Your task to perform on an android device: install app "Walmart Shopping & Grocery" Image 0: 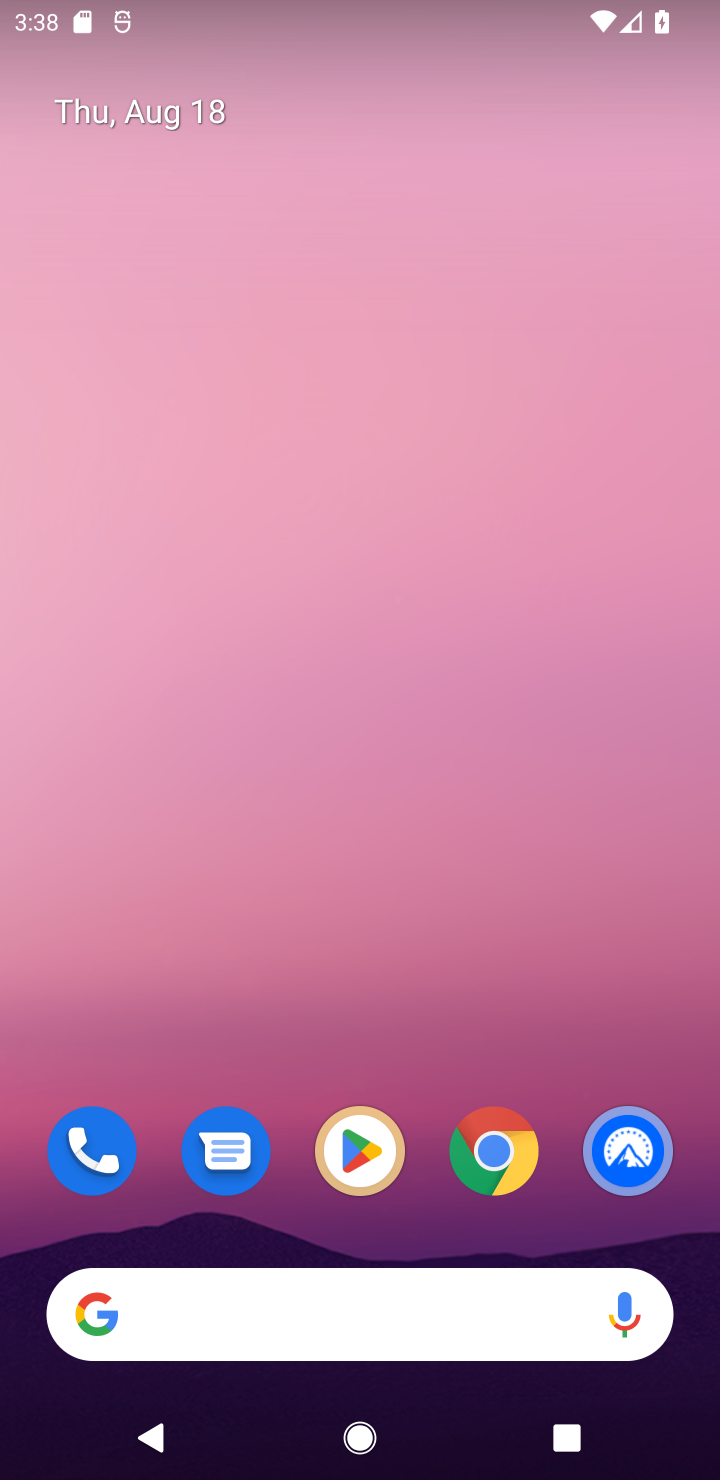
Step 0: click (372, 1176)
Your task to perform on an android device: install app "Walmart Shopping & Grocery" Image 1: 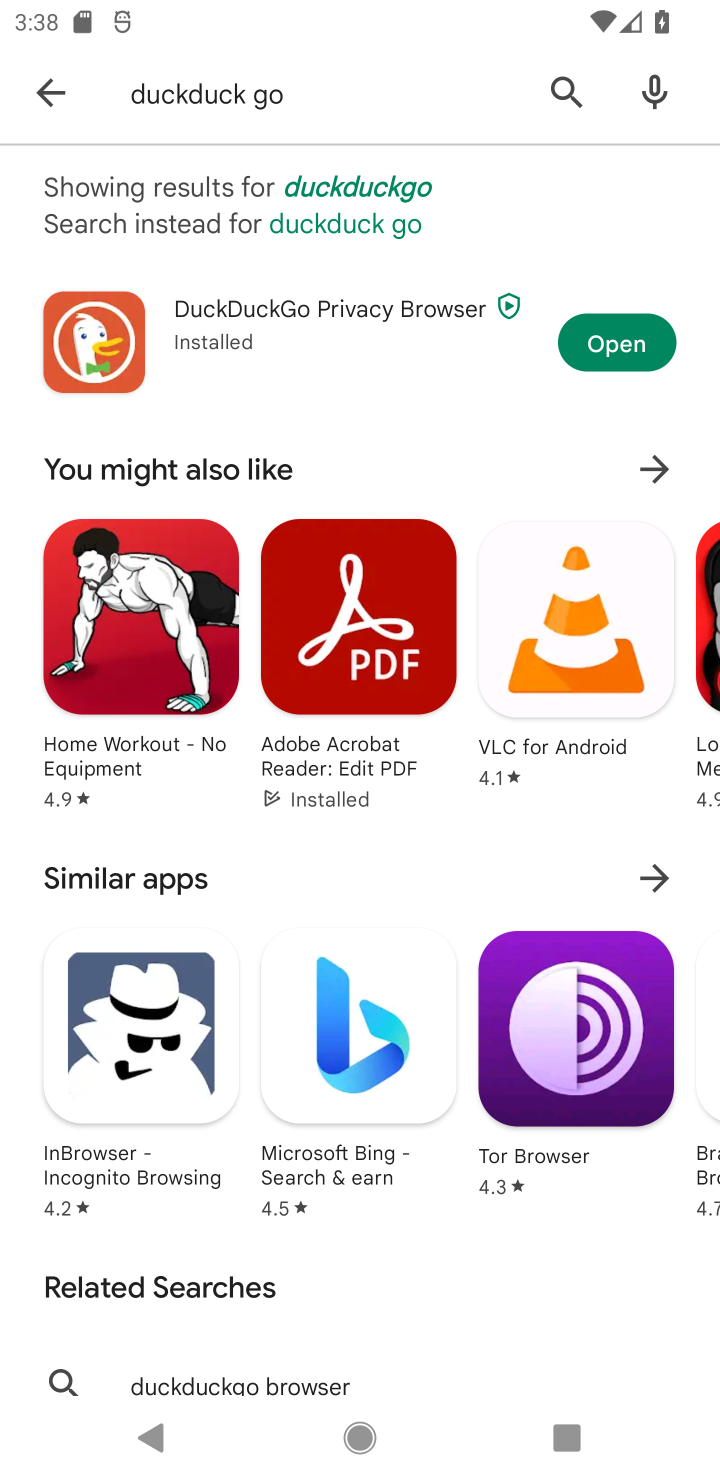
Step 1: click (567, 70)
Your task to perform on an android device: install app "Walmart Shopping & Grocery" Image 2: 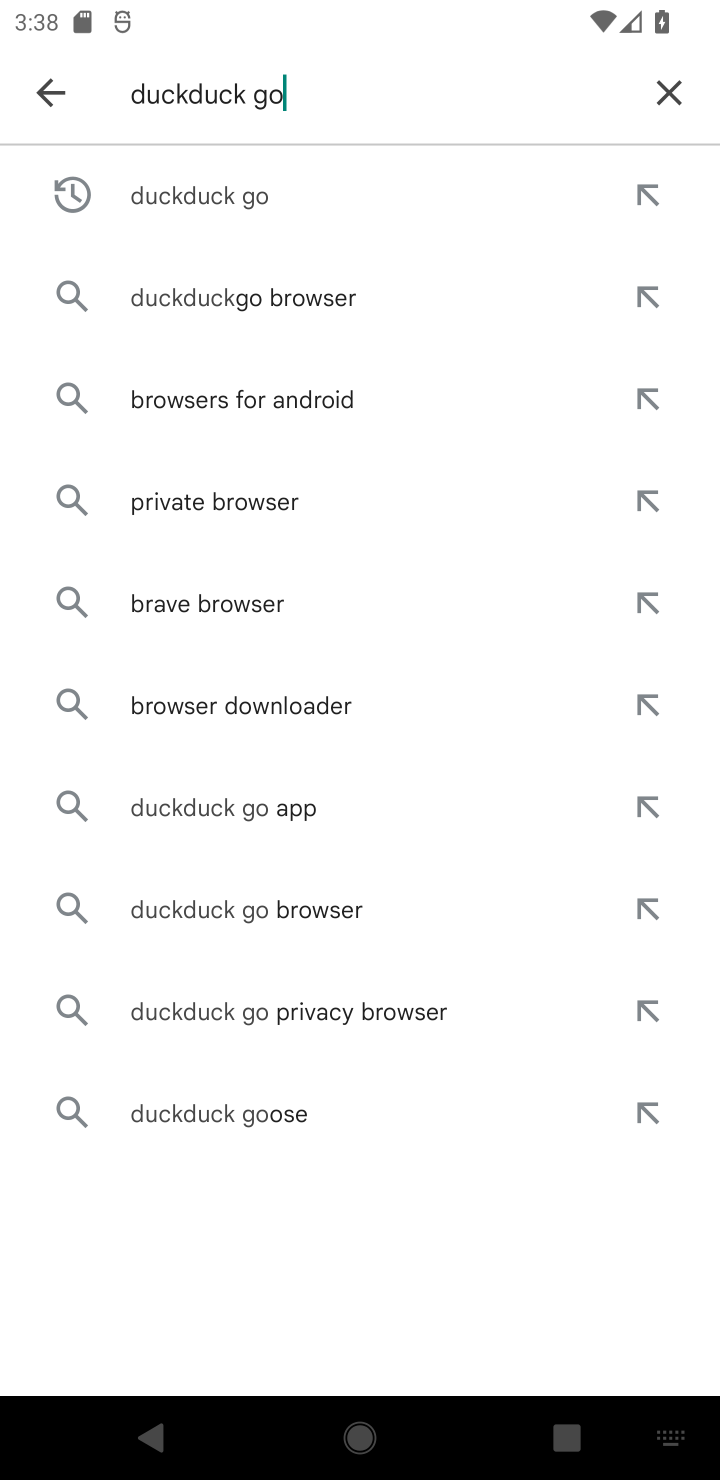
Step 2: click (674, 126)
Your task to perform on an android device: install app "Walmart Shopping & Grocery" Image 3: 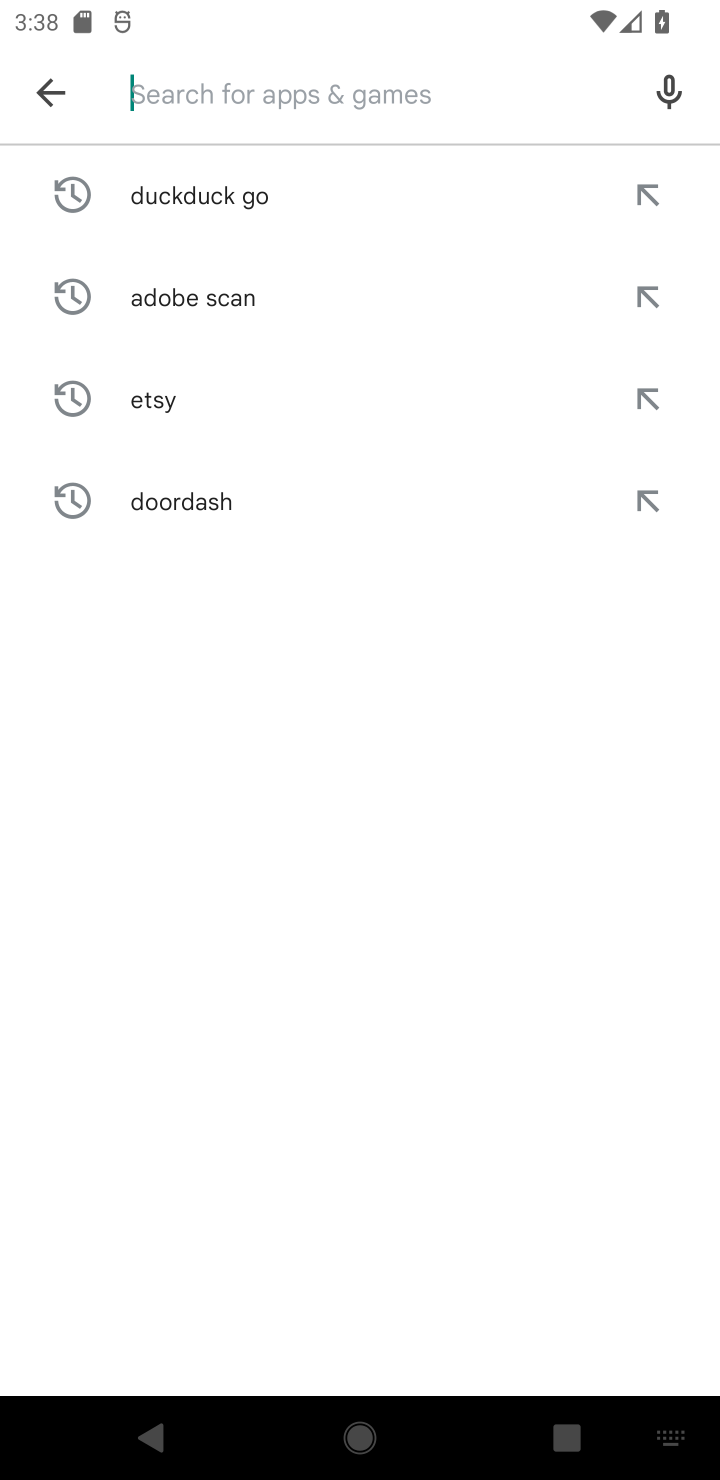
Step 3: type "walmart"
Your task to perform on an android device: install app "Walmart Shopping & Grocery" Image 4: 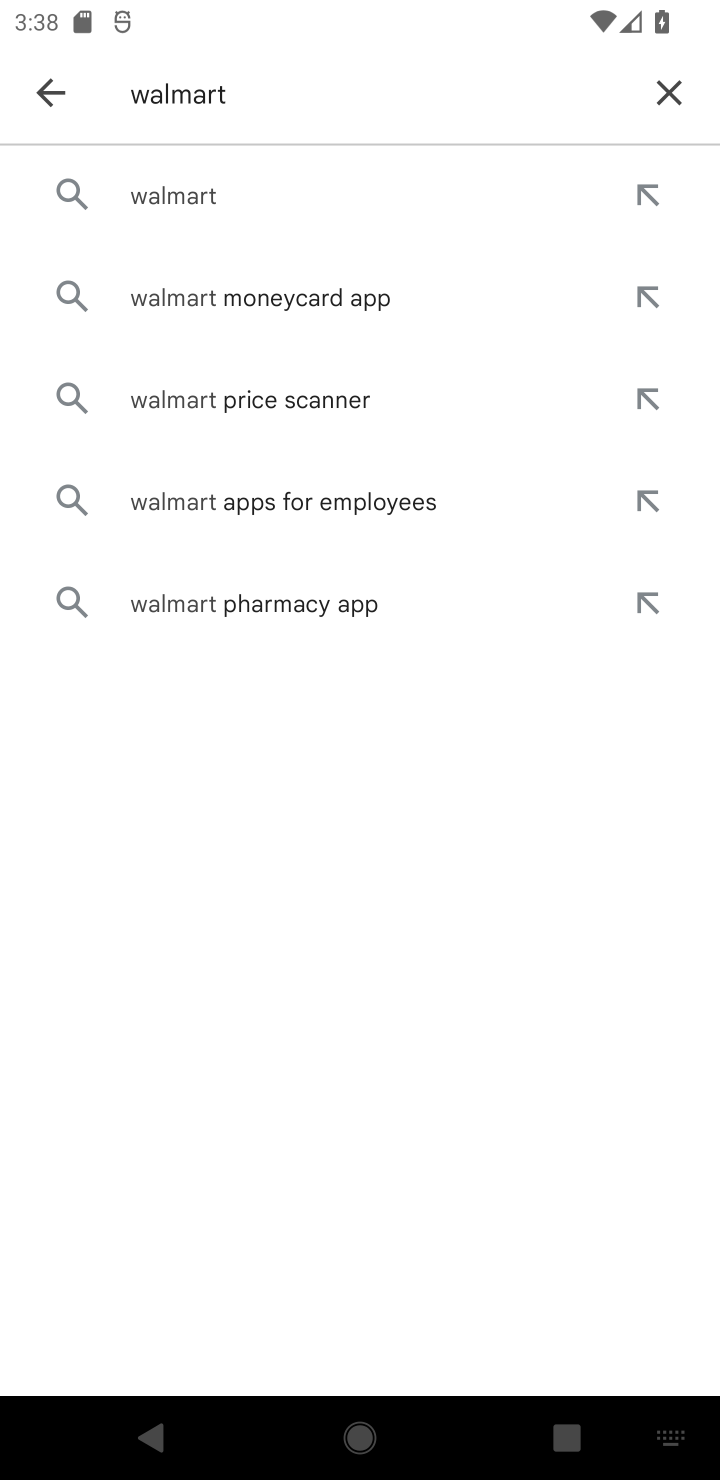
Step 4: click (347, 202)
Your task to perform on an android device: install app "Walmart Shopping & Grocery" Image 5: 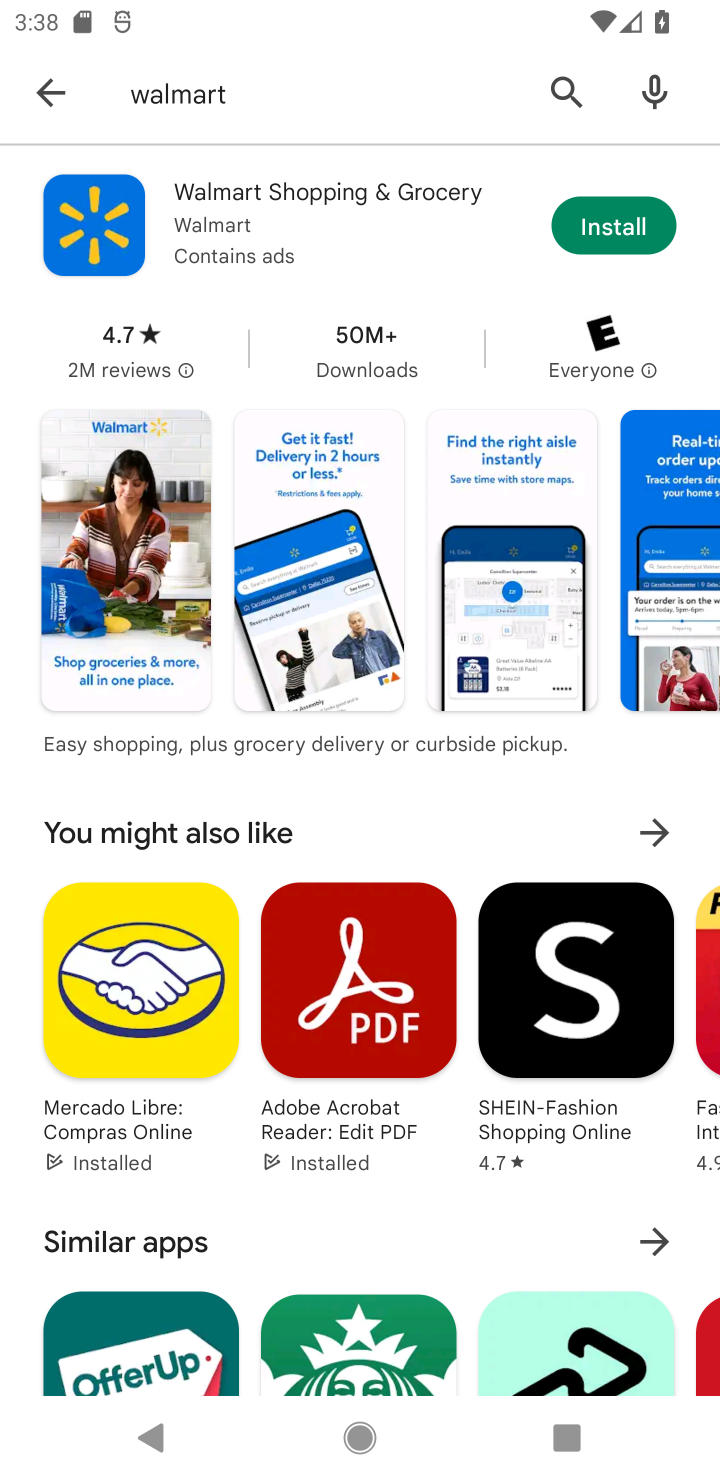
Step 5: click (653, 235)
Your task to perform on an android device: install app "Walmart Shopping & Grocery" Image 6: 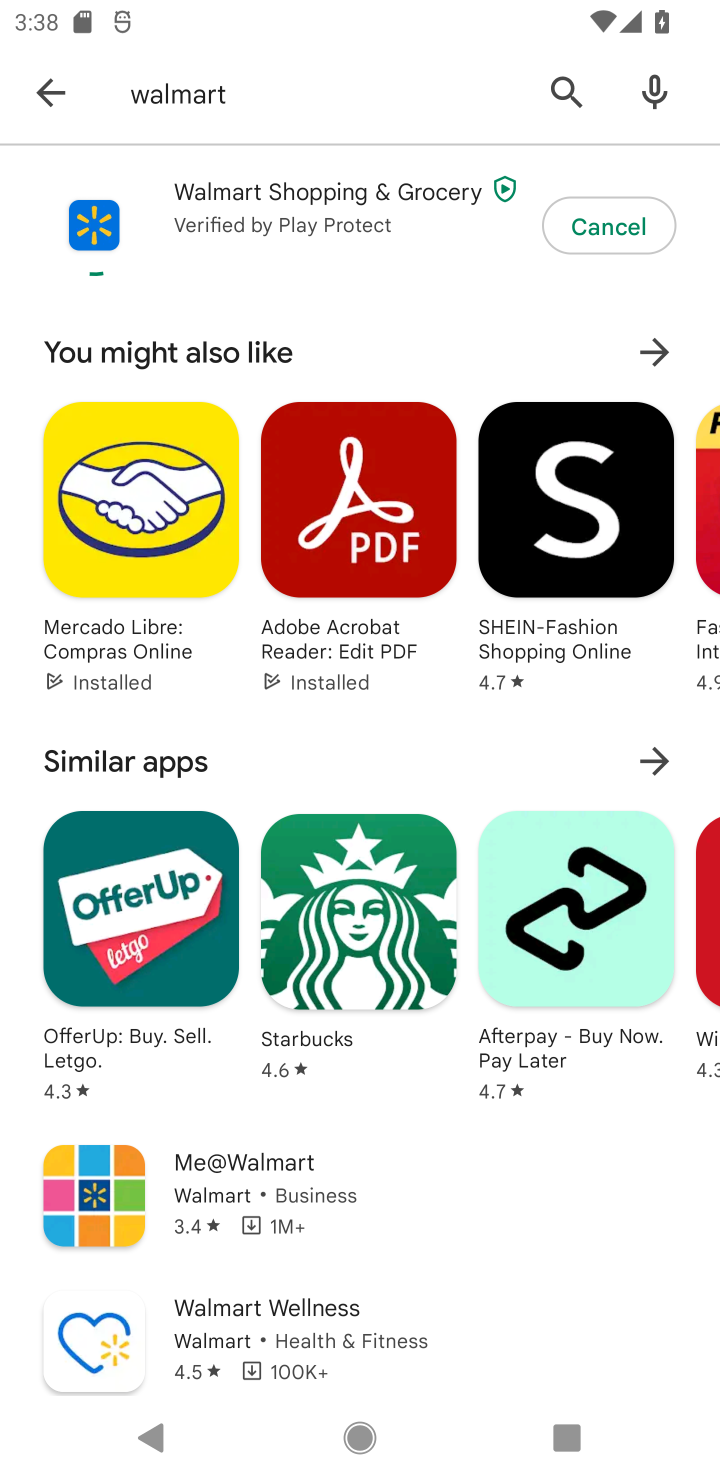
Step 6: task complete